Your task to perform on an android device: change timer sound Image 0: 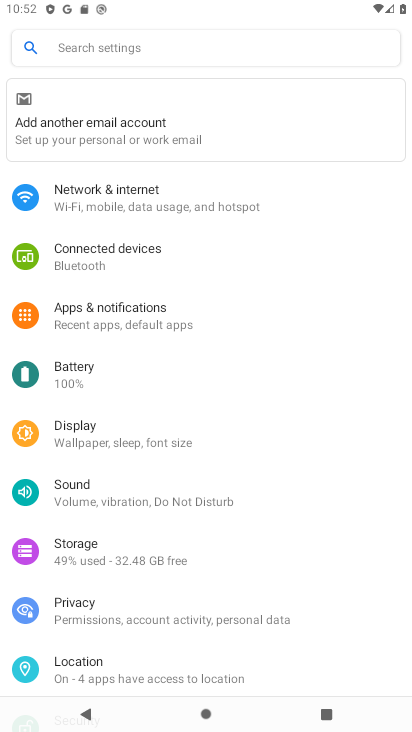
Step 0: press home button
Your task to perform on an android device: change timer sound Image 1: 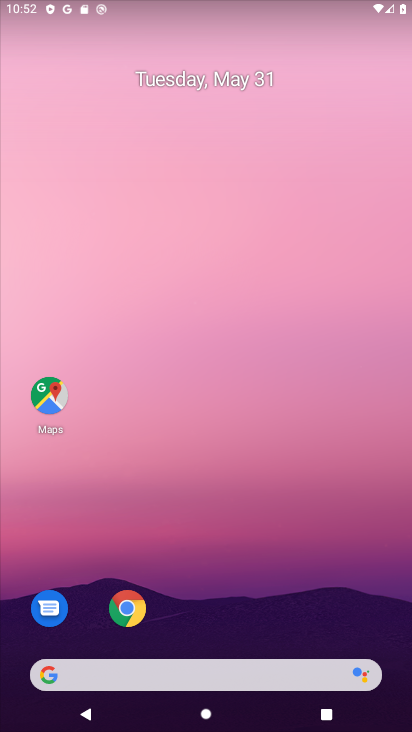
Step 1: drag from (278, 642) to (339, 166)
Your task to perform on an android device: change timer sound Image 2: 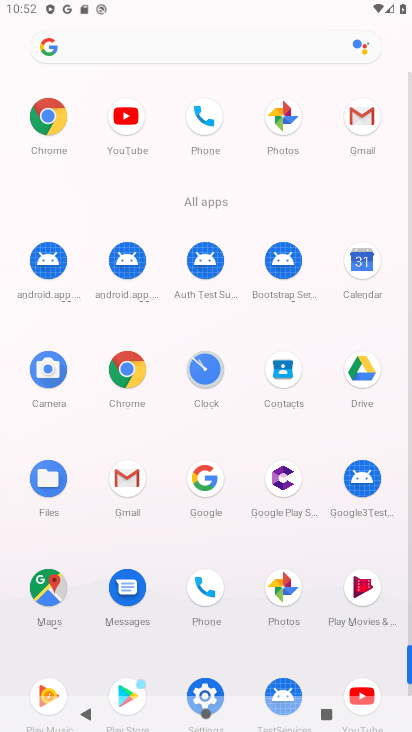
Step 2: click (205, 375)
Your task to perform on an android device: change timer sound Image 3: 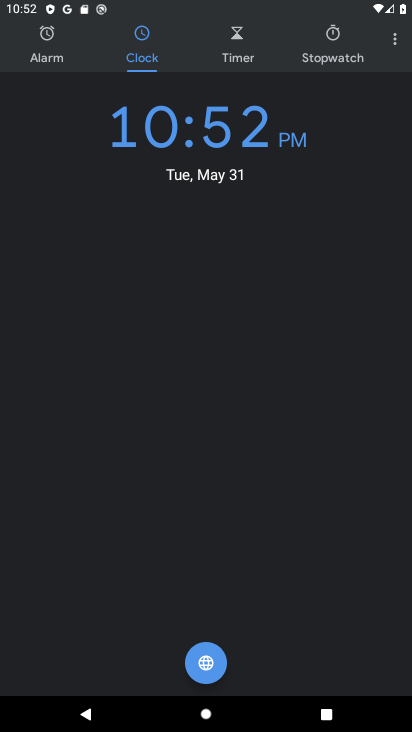
Step 3: click (241, 68)
Your task to perform on an android device: change timer sound Image 4: 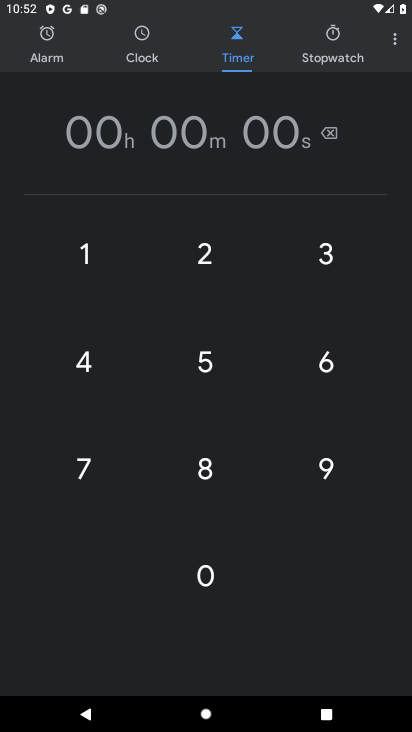
Step 4: click (208, 470)
Your task to perform on an android device: change timer sound Image 5: 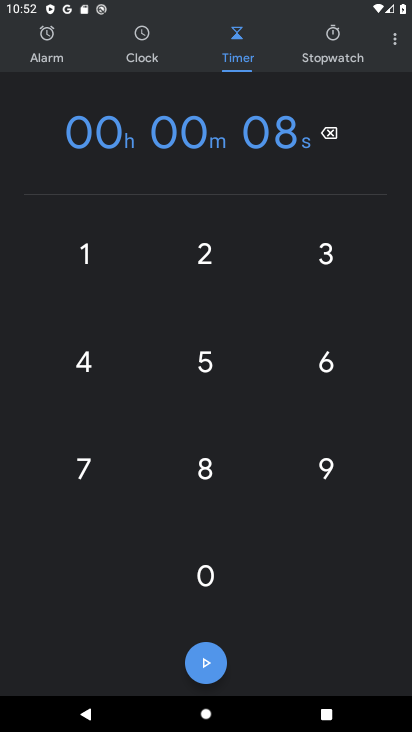
Step 5: click (206, 655)
Your task to perform on an android device: change timer sound Image 6: 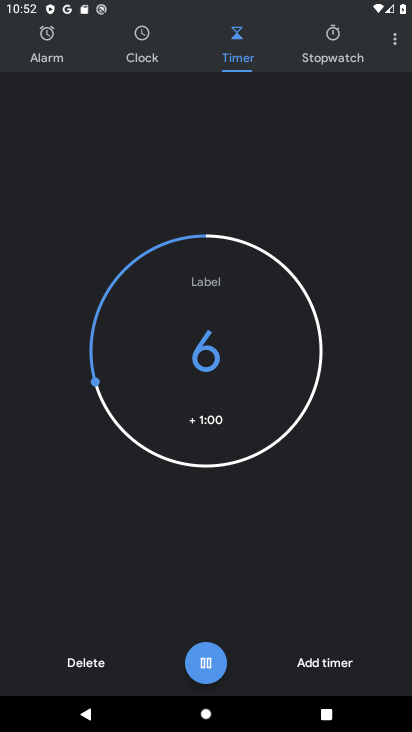
Step 6: task complete